Your task to perform on an android device: choose inbox layout in the gmail app Image 0: 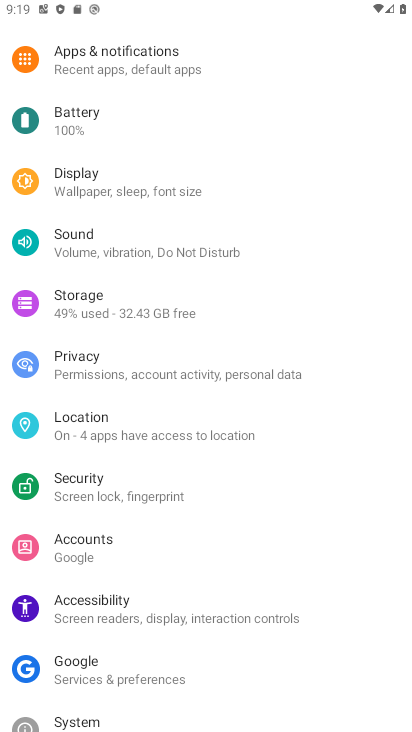
Step 0: press home button
Your task to perform on an android device: choose inbox layout in the gmail app Image 1: 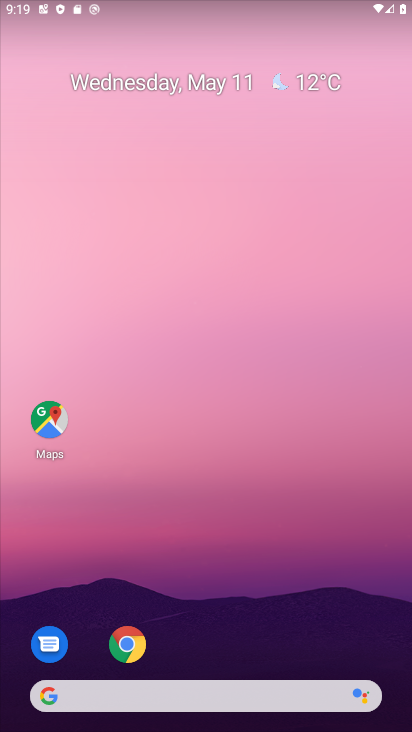
Step 1: drag from (222, 661) to (129, 134)
Your task to perform on an android device: choose inbox layout in the gmail app Image 2: 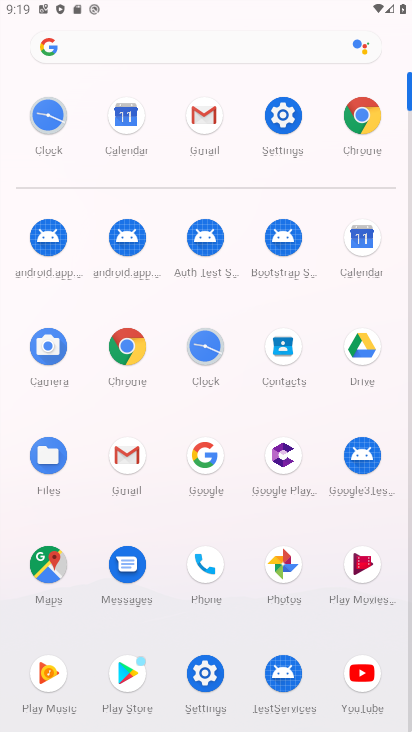
Step 2: click (212, 132)
Your task to perform on an android device: choose inbox layout in the gmail app Image 3: 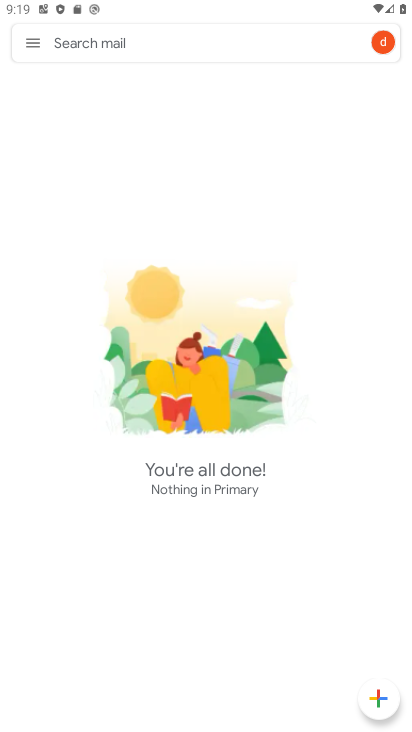
Step 3: click (28, 52)
Your task to perform on an android device: choose inbox layout in the gmail app Image 4: 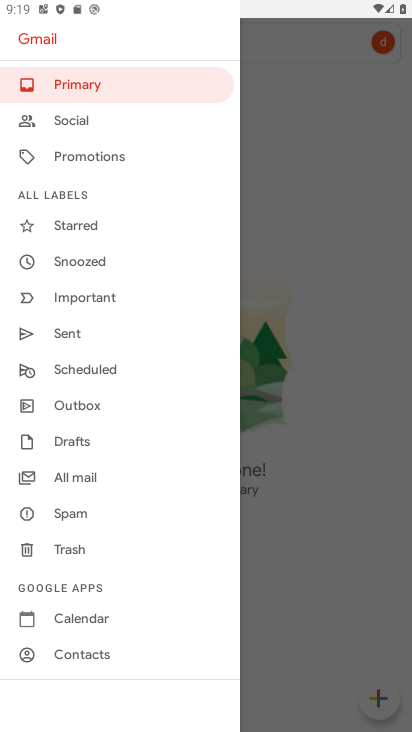
Step 4: drag from (69, 673) to (111, 412)
Your task to perform on an android device: choose inbox layout in the gmail app Image 5: 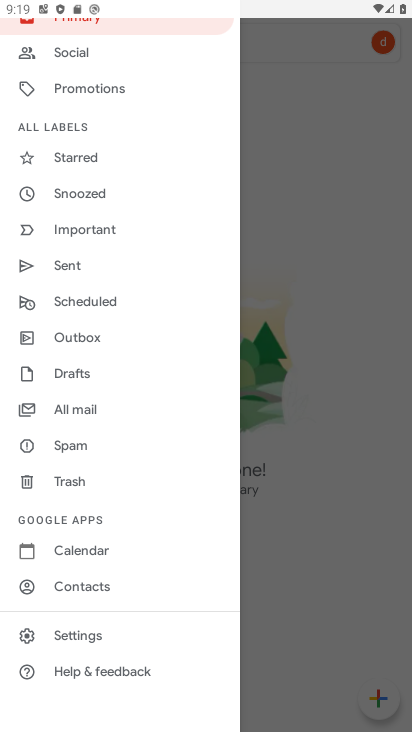
Step 5: click (84, 637)
Your task to perform on an android device: choose inbox layout in the gmail app Image 6: 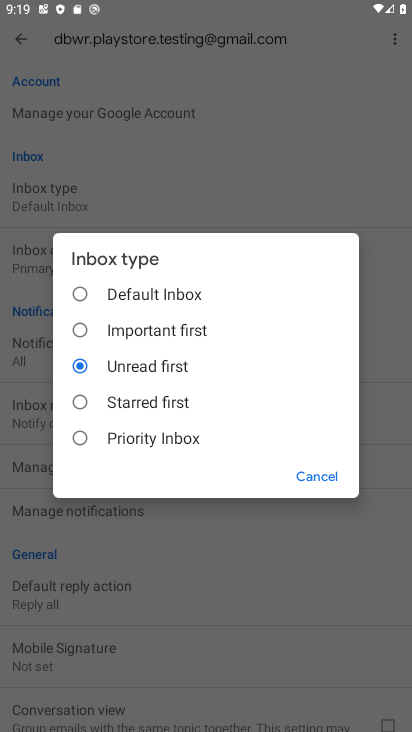
Step 6: click (165, 298)
Your task to perform on an android device: choose inbox layout in the gmail app Image 7: 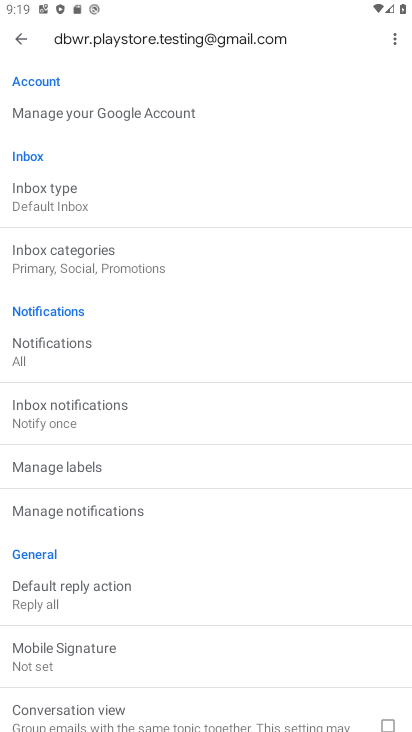
Step 7: click (79, 212)
Your task to perform on an android device: choose inbox layout in the gmail app Image 8: 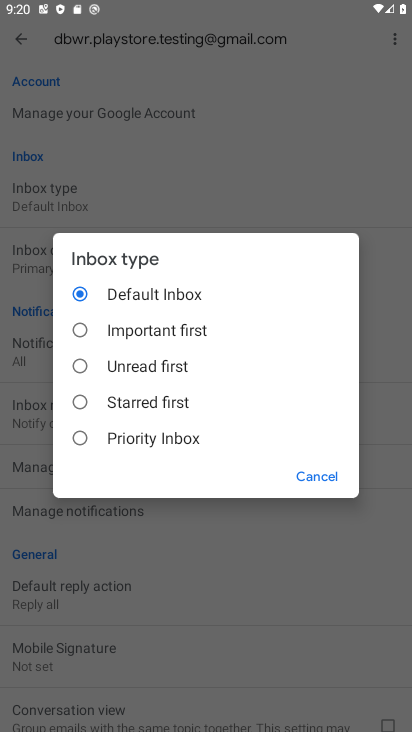
Step 8: click (104, 437)
Your task to perform on an android device: choose inbox layout in the gmail app Image 9: 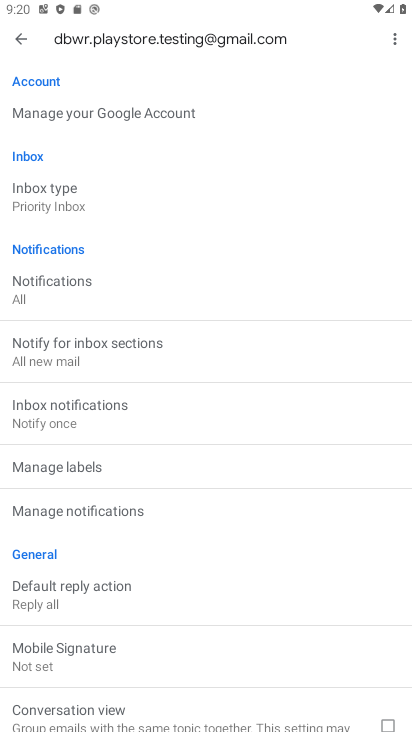
Step 9: press back button
Your task to perform on an android device: choose inbox layout in the gmail app Image 10: 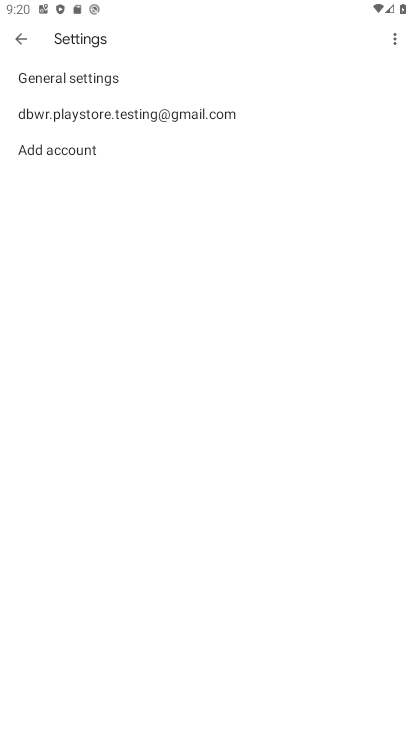
Step 10: press back button
Your task to perform on an android device: choose inbox layout in the gmail app Image 11: 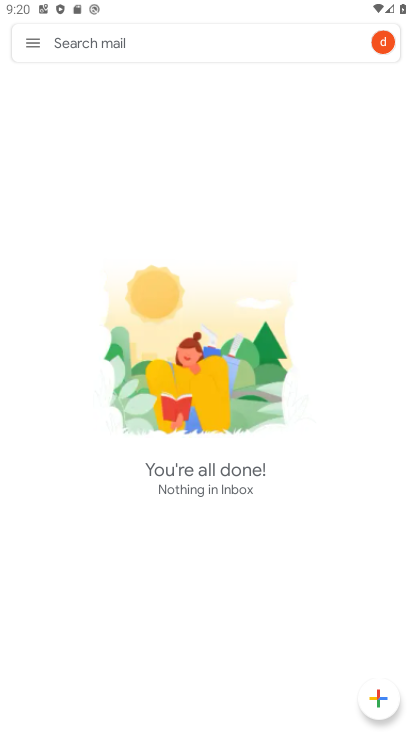
Step 11: click (32, 41)
Your task to perform on an android device: choose inbox layout in the gmail app Image 12: 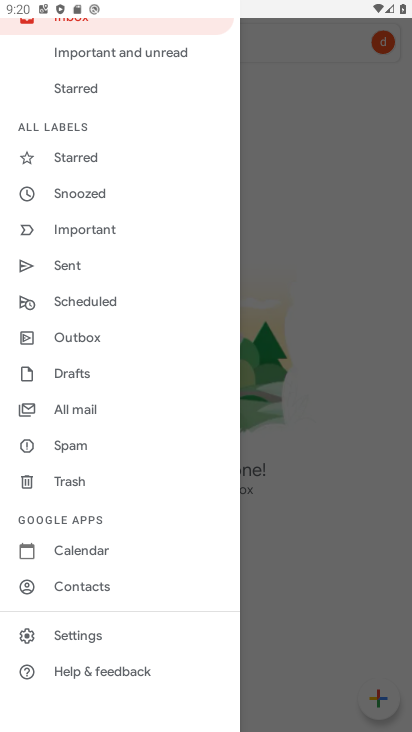
Step 12: task complete